Your task to perform on an android device: Go to Google Image 0: 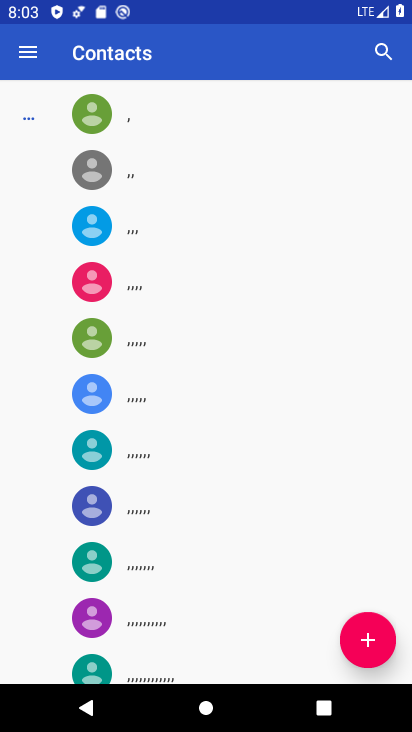
Step 0: press home button
Your task to perform on an android device: Go to Google Image 1: 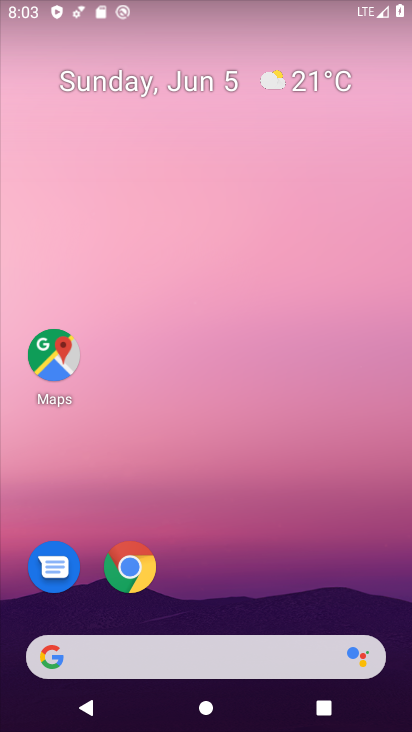
Step 1: drag from (145, 634) to (169, 431)
Your task to perform on an android device: Go to Google Image 2: 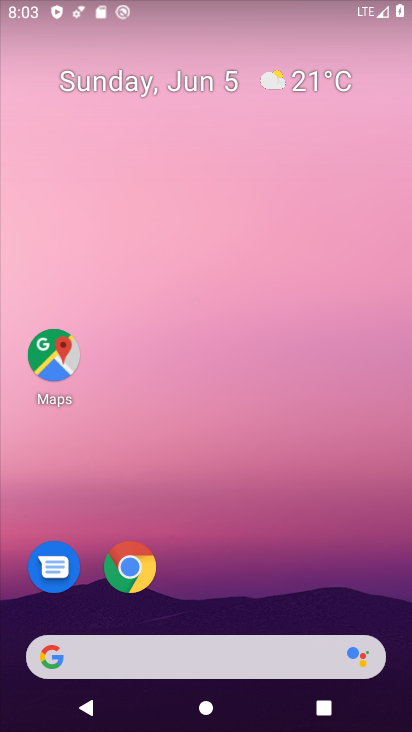
Step 2: drag from (200, 646) to (237, 331)
Your task to perform on an android device: Go to Google Image 3: 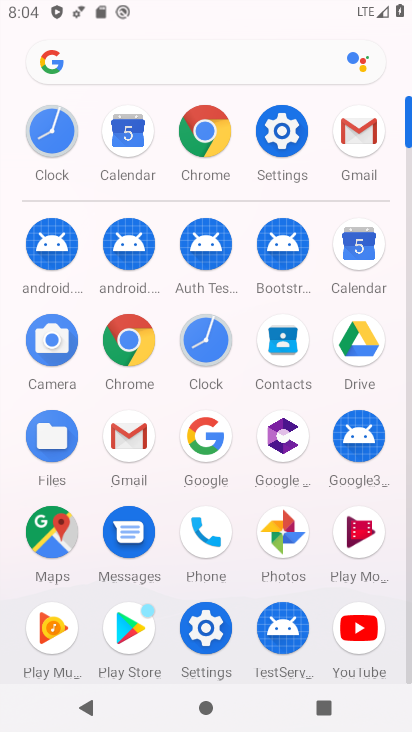
Step 3: click (210, 441)
Your task to perform on an android device: Go to Google Image 4: 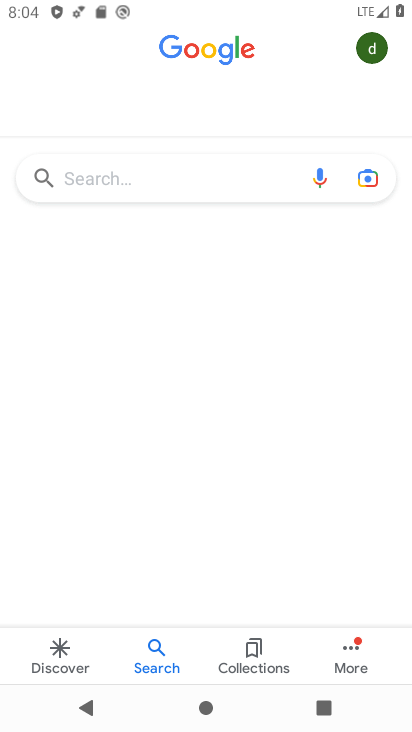
Step 4: task complete